Your task to perform on an android device: open app "Google Duo" (install if not already installed) Image 0: 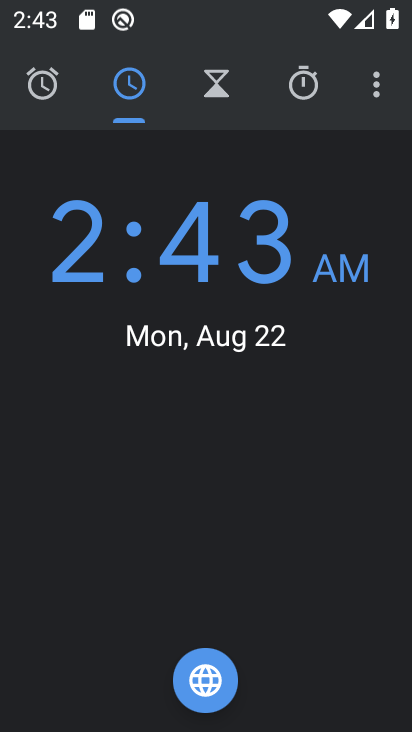
Step 0: press home button
Your task to perform on an android device: open app "Google Duo" (install if not already installed) Image 1: 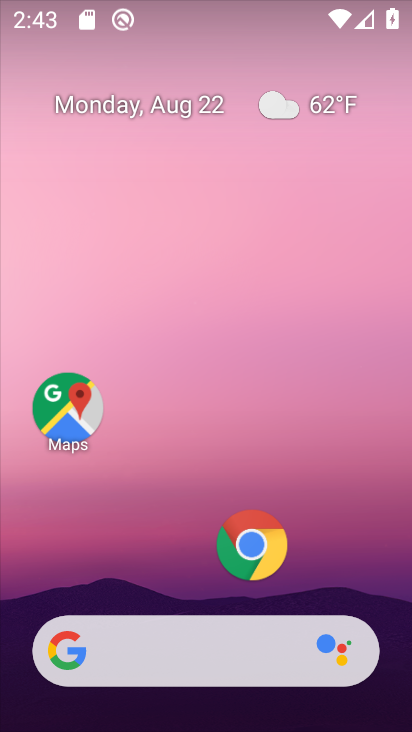
Step 1: drag from (114, 624) to (201, 84)
Your task to perform on an android device: open app "Google Duo" (install if not already installed) Image 2: 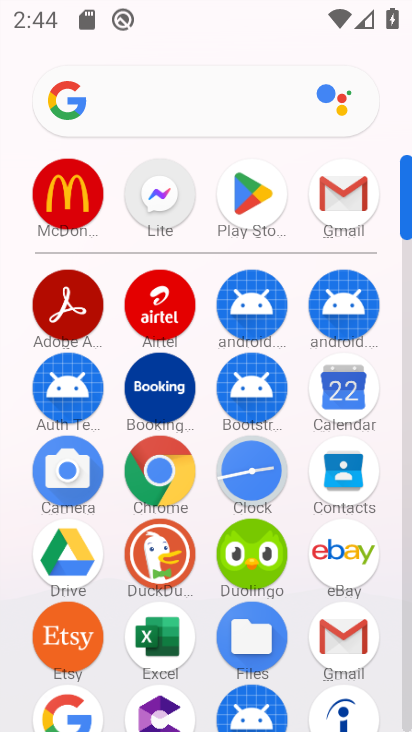
Step 2: click (247, 196)
Your task to perform on an android device: open app "Google Duo" (install if not already installed) Image 3: 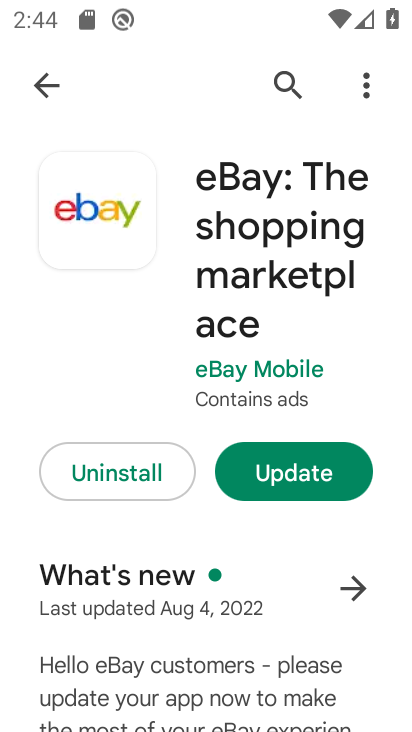
Step 3: click (298, 79)
Your task to perform on an android device: open app "Google Duo" (install if not already installed) Image 4: 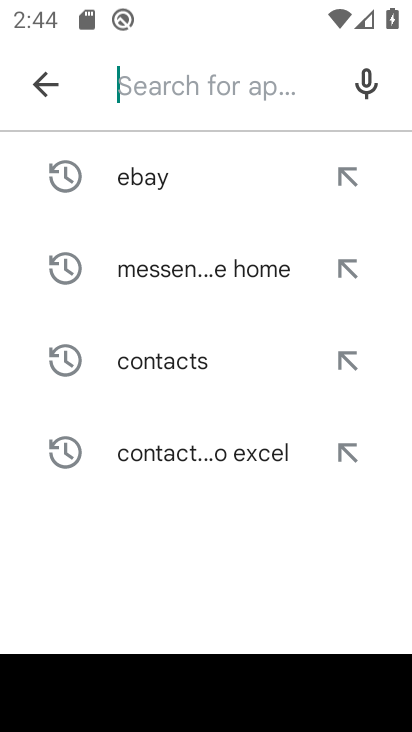
Step 4: click (110, 98)
Your task to perform on an android device: open app "Google Duo" (install if not already installed) Image 5: 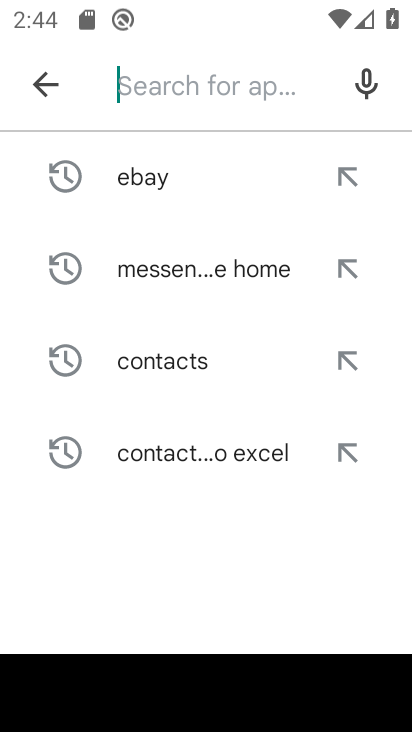
Step 5: type "Google Duo"
Your task to perform on an android device: open app "Google Duo" (install if not already installed) Image 6: 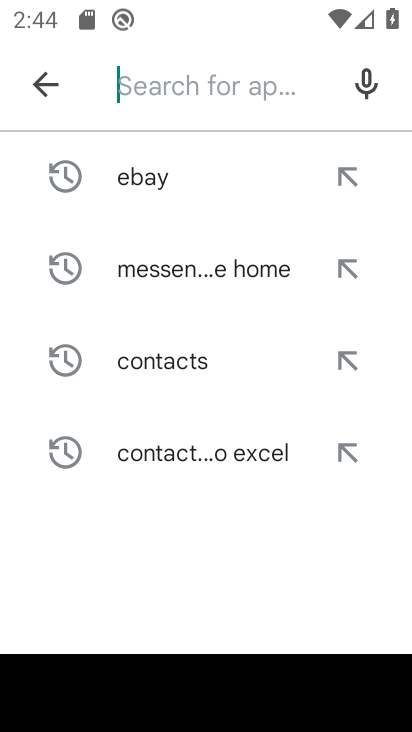
Step 6: click (103, 598)
Your task to perform on an android device: open app "Google Duo" (install if not already installed) Image 7: 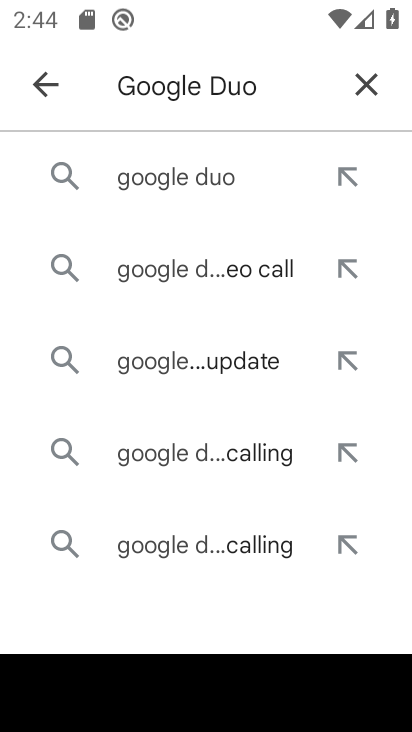
Step 7: click (201, 171)
Your task to perform on an android device: open app "Google Duo" (install if not already installed) Image 8: 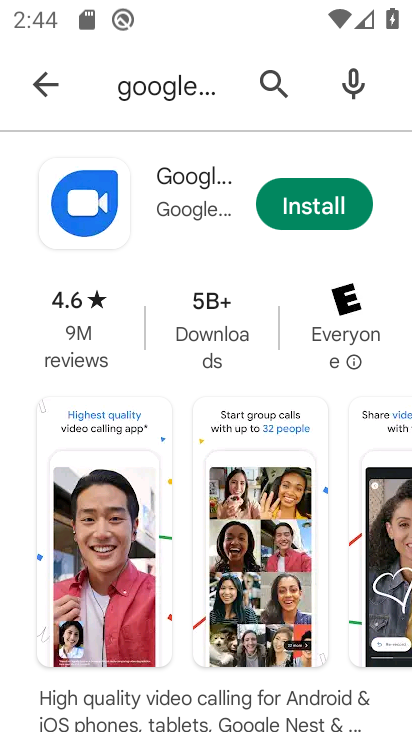
Step 8: click (325, 194)
Your task to perform on an android device: open app "Google Duo" (install if not already installed) Image 9: 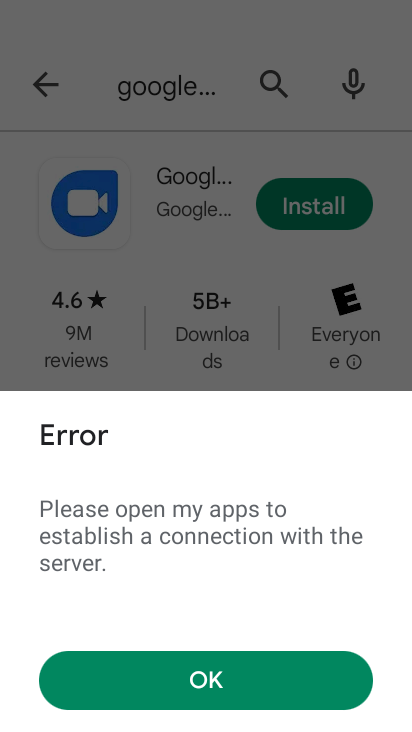
Step 9: click (236, 703)
Your task to perform on an android device: open app "Google Duo" (install if not already installed) Image 10: 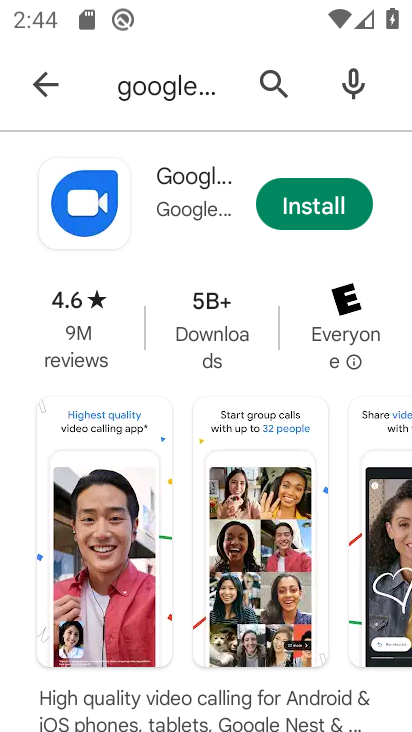
Step 10: click (313, 231)
Your task to perform on an android device: open app "Google Duo" (install if not already installed) Image 11: 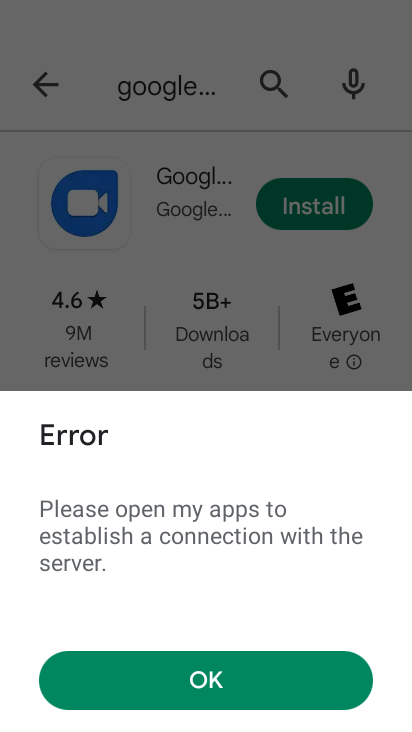
Step 11: task complete